Your task to perform on an android device: Open Google Chrome and click the shortcut for Amazon.com Image 0: 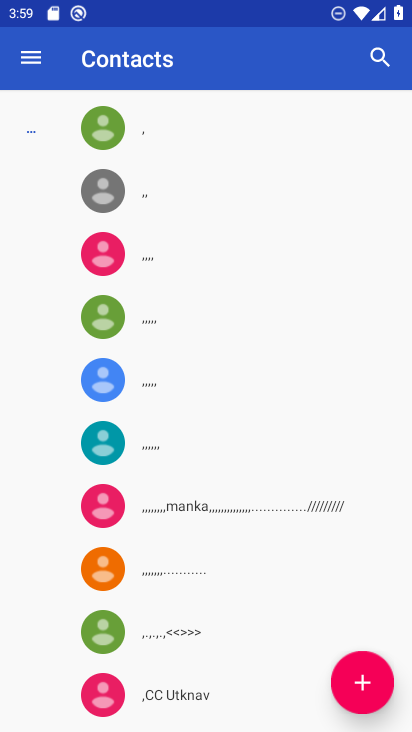
Step 0: press back button
Your task to perform on an android device: Open Google Chrome and click the shortcut for Amazon.com Image 1: 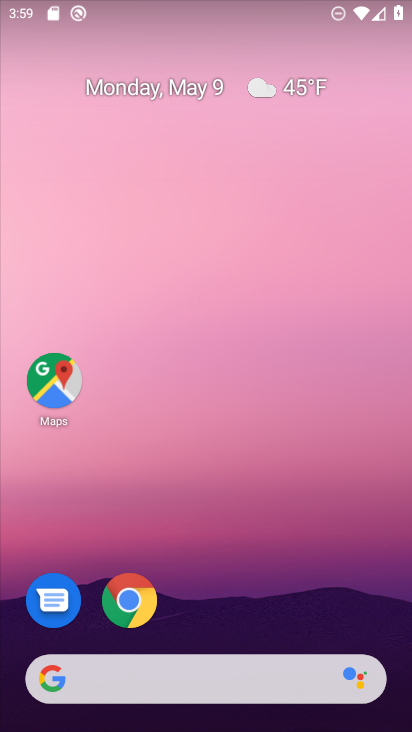
Step 1: drag from (232, 440) to (212, 4)
Your task to perform on an android device: Open Google Chrome and click the shortcut for Amazon.com Image 2: 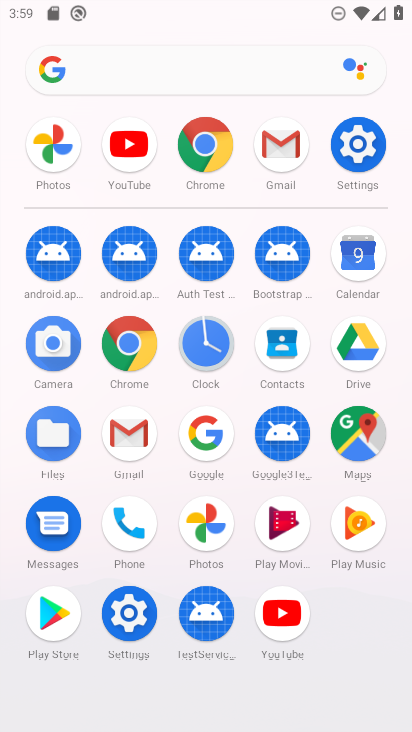
Step 2: drag from (19, 533) to (29, 167)
Your task to perform on an android device: Open Google Chrome and click the shortcut for Amazon.com Image 3: 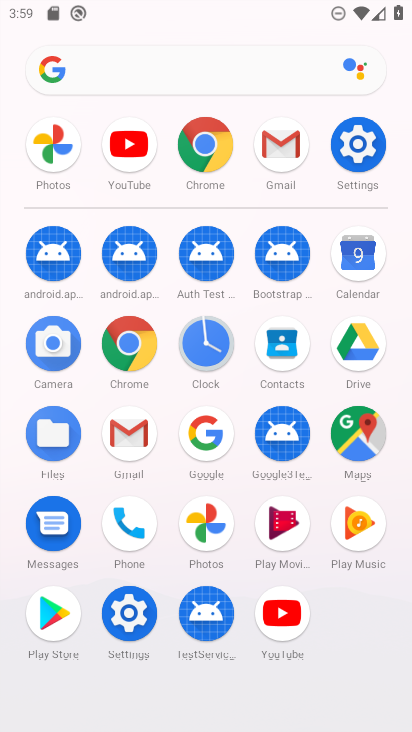
Step 3: click (128, 335)
Your task to perform on an android device: Open Google Chrome and click the shortcut for Amazon.com Image 4: 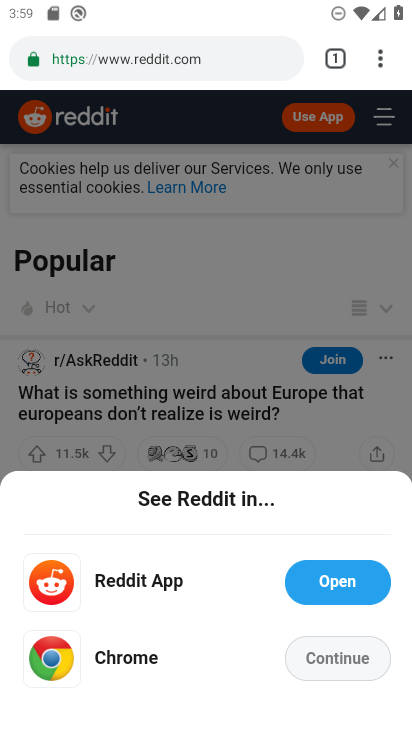
Step 4: click (187, 57)
Your task to perform on an android device: Open Google Chrome and click the shortcut for Amazon.com Image 5: 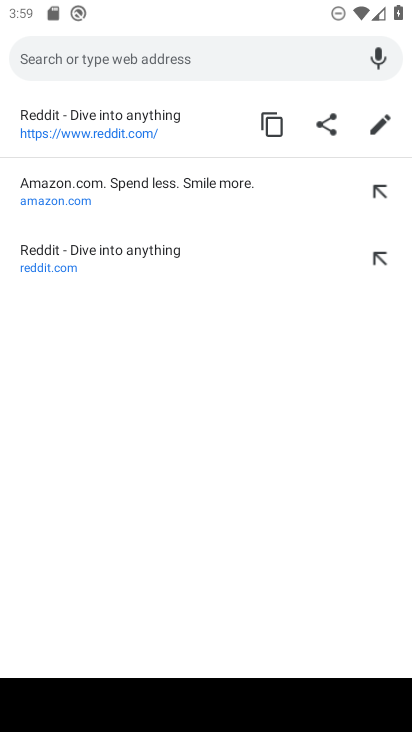
Step 5: type "Amazon.com"
Your task to perform on an android device: Open Google Chrome and click the shortcut for Amazon.com Image 6: 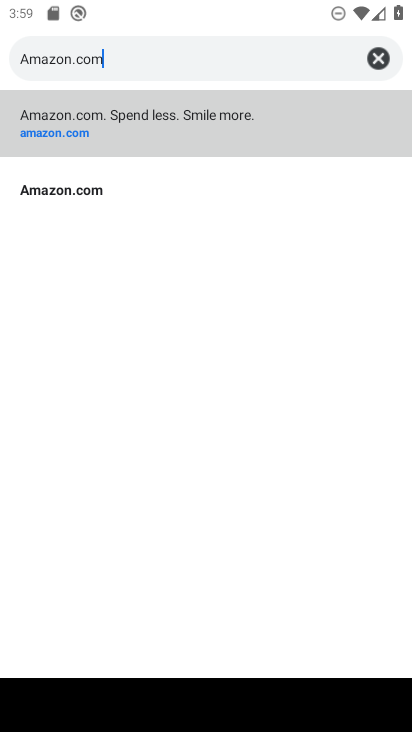
Step 6: type ""
Your task to perform on an android device: Open Google Chrome and click the shortcut for Amazon.com Image 7: 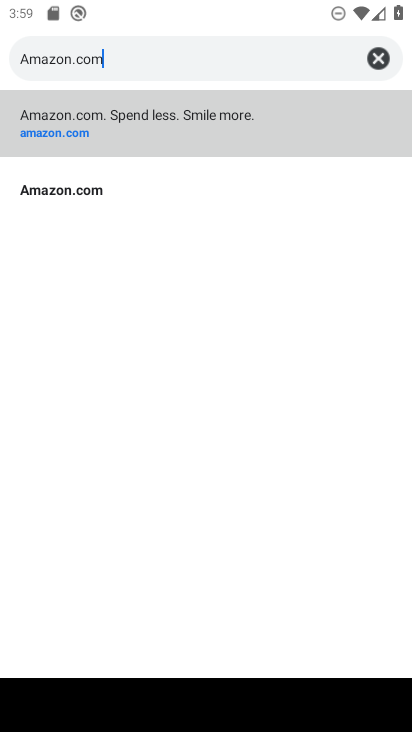
Step 7: click (229, 126)
Your task to perform on an android device: Open Google Chrome and click the shortcut for Amazon.com Image 8: 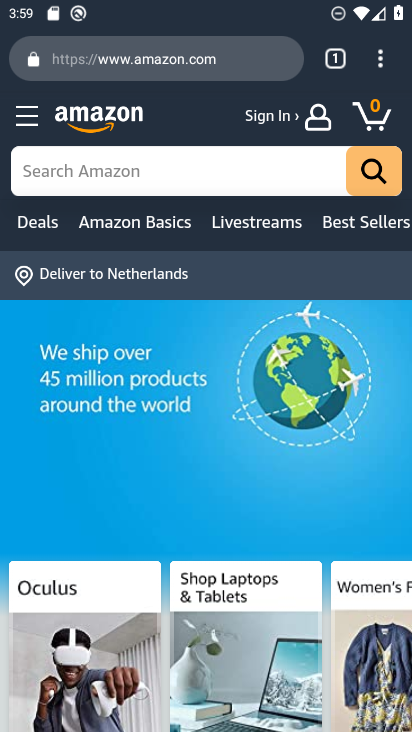
Step 8: task complete